Your task to perform on an android device: turn off data saver in the chrome app Image 0: 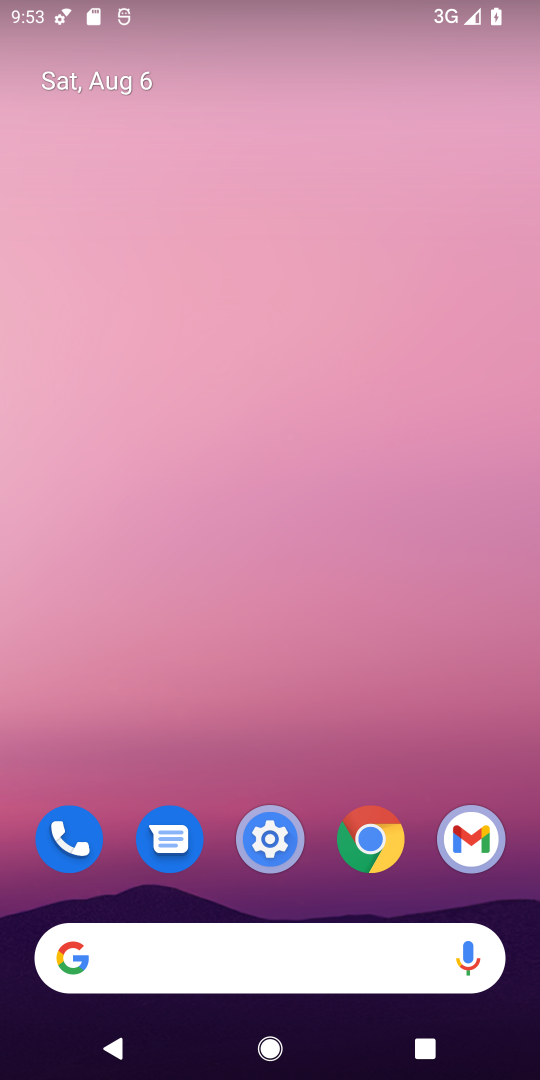
Step 0: press home button
Your task to perform on an android device: turn off data saver in the chrome app Image 1: 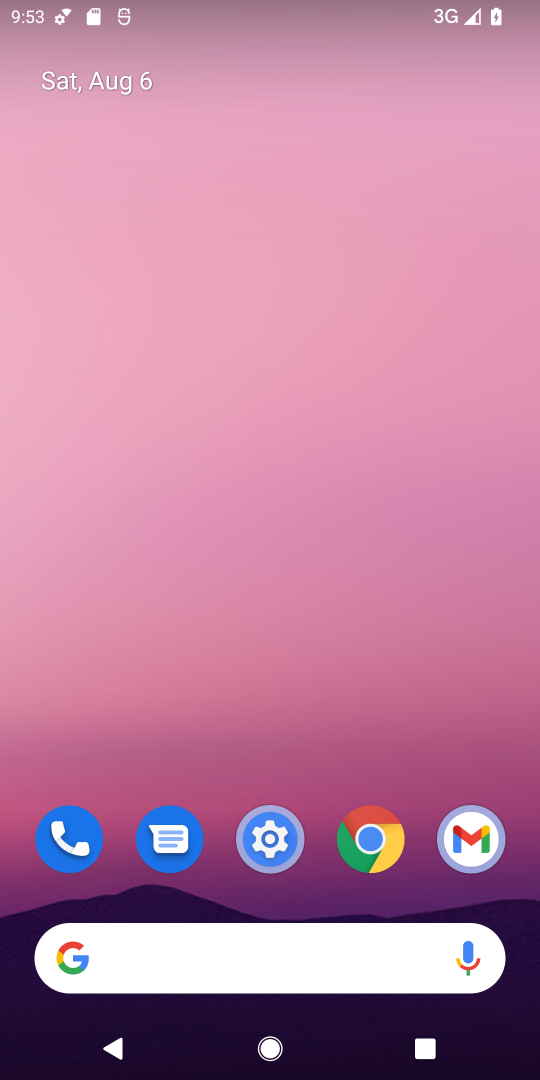
Step 1: click (373, 830)
Your task to perform on an android device: turn off data saver in the chrome app Image 2: 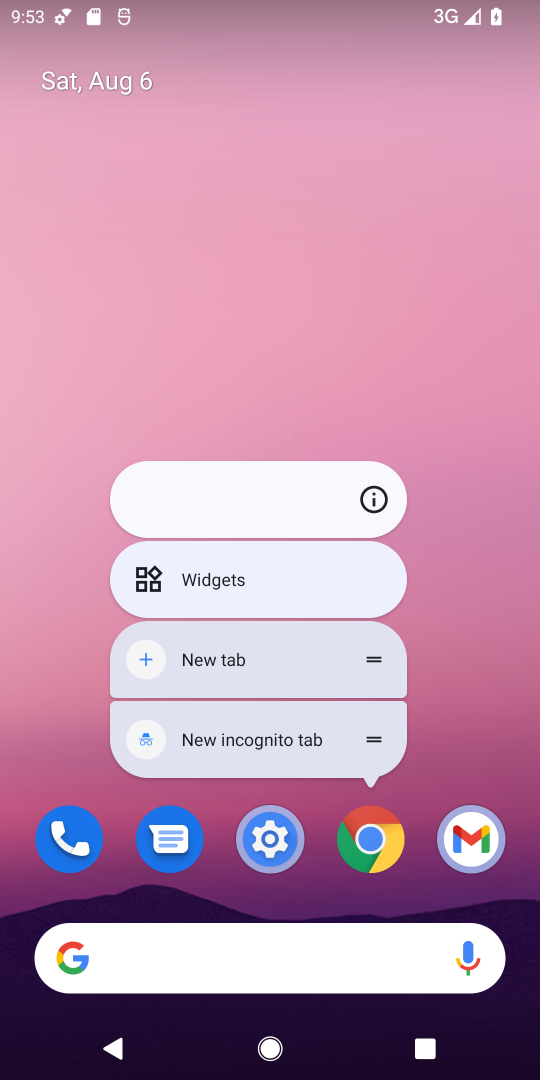
Step 2: click (439, 764)
Your task to perform on an android device: turn off data saver in the chrome app Image 3: 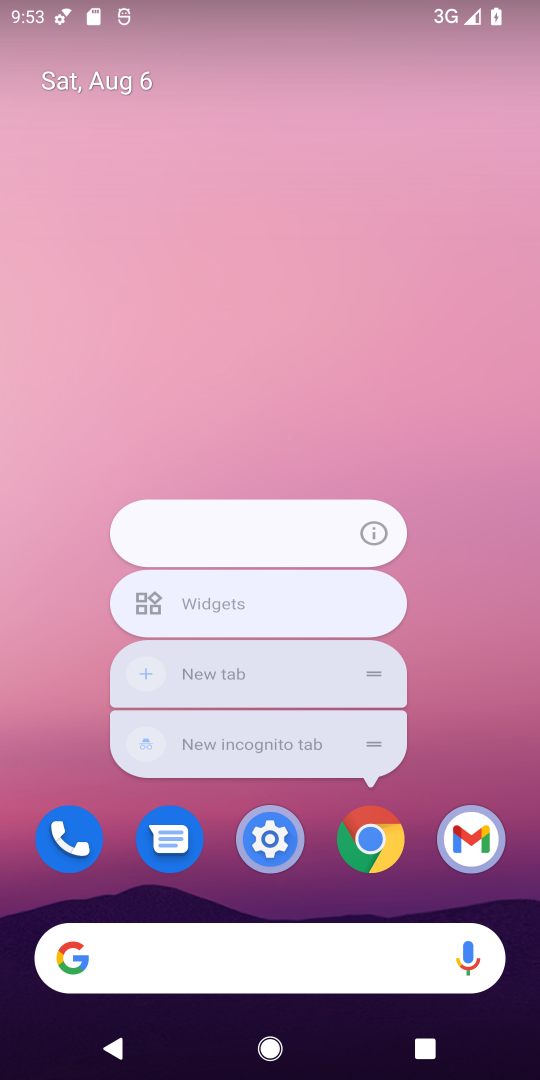
Step 3: drag from (439, 779) to (482, 36)
Your task to perform on an android device: turn off data saver in the chrome app Image 4: 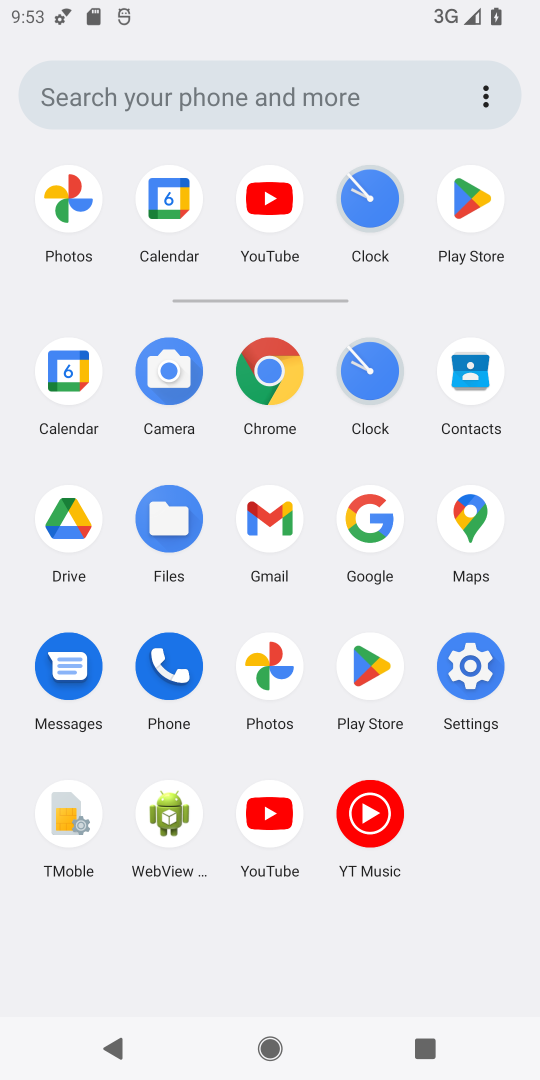
Step 4: click (254, 353)
Your task to perform on an android device: turn off data saver in the chrome app Image 5: 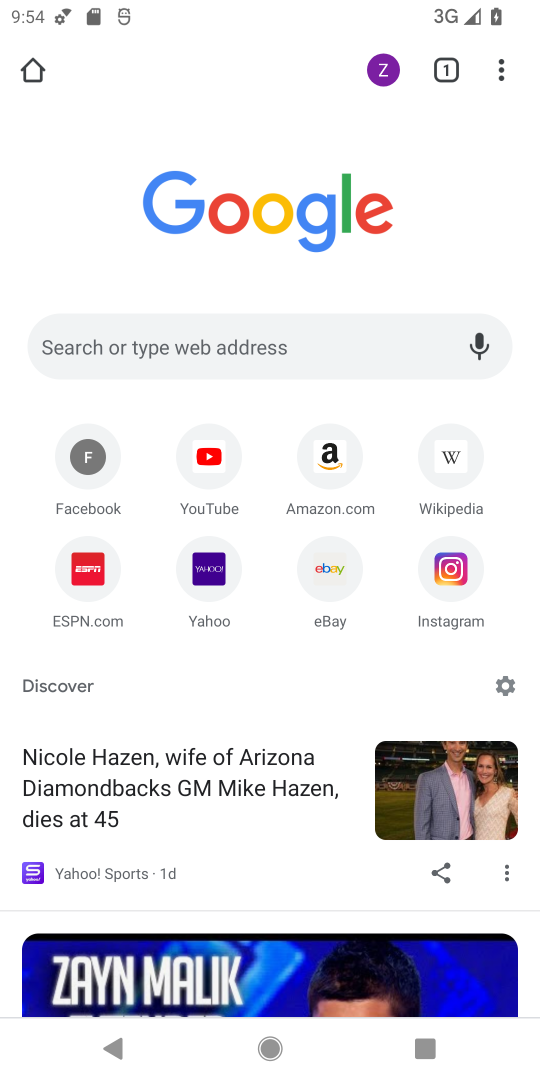
Step 5: click (492, 53)
Your task to perform on an android device: turn off data saver in the chrome app Image 6: 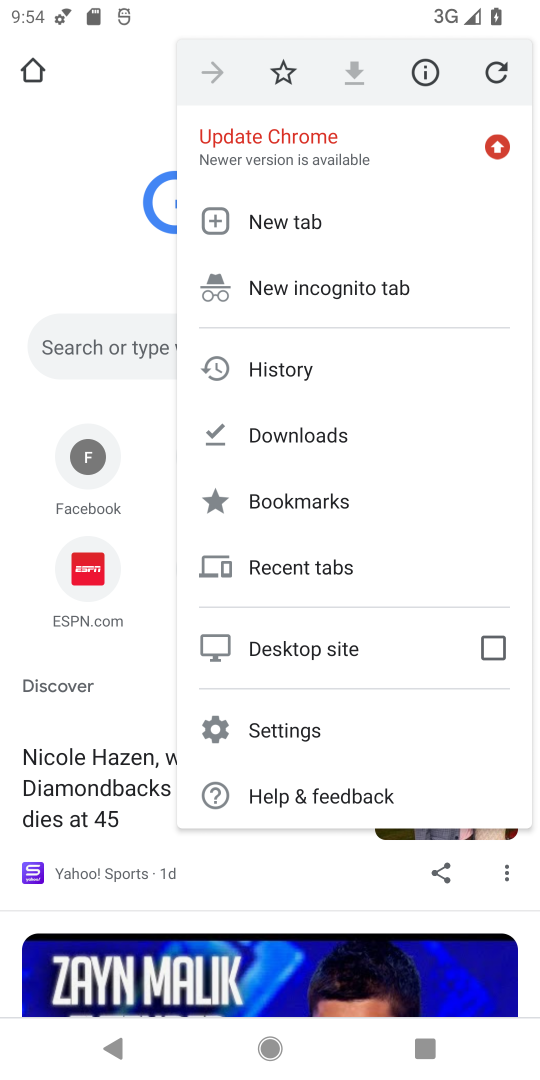
Step 6: click (348, 733)
Your task to perform on an android device: turn off data saver in the chrome app Image 7: 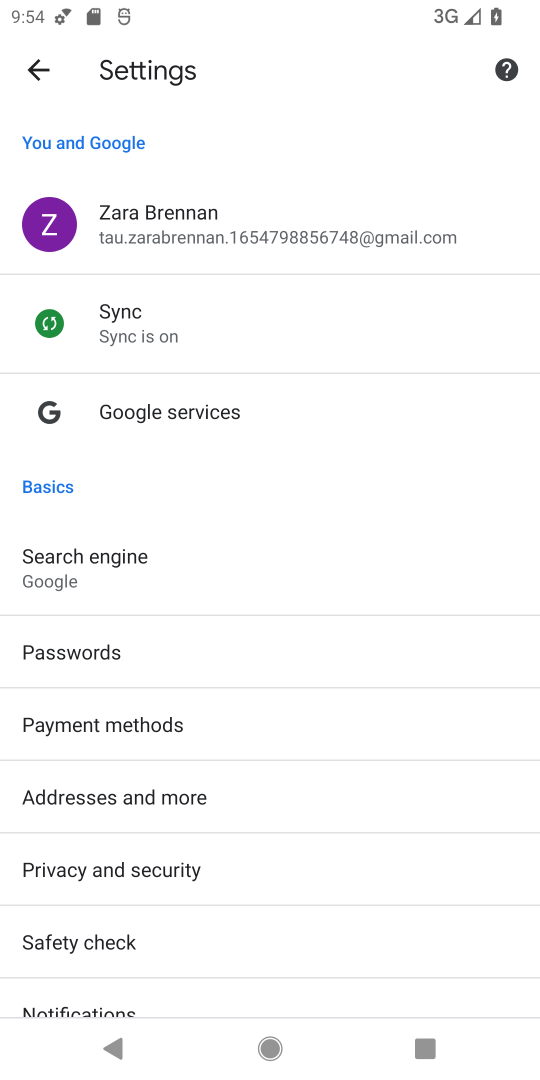
Step 7: drag from (231, 958) to (334, 553)
Your task to perform on an android device: turn off data saver in the chrome app Image 8: 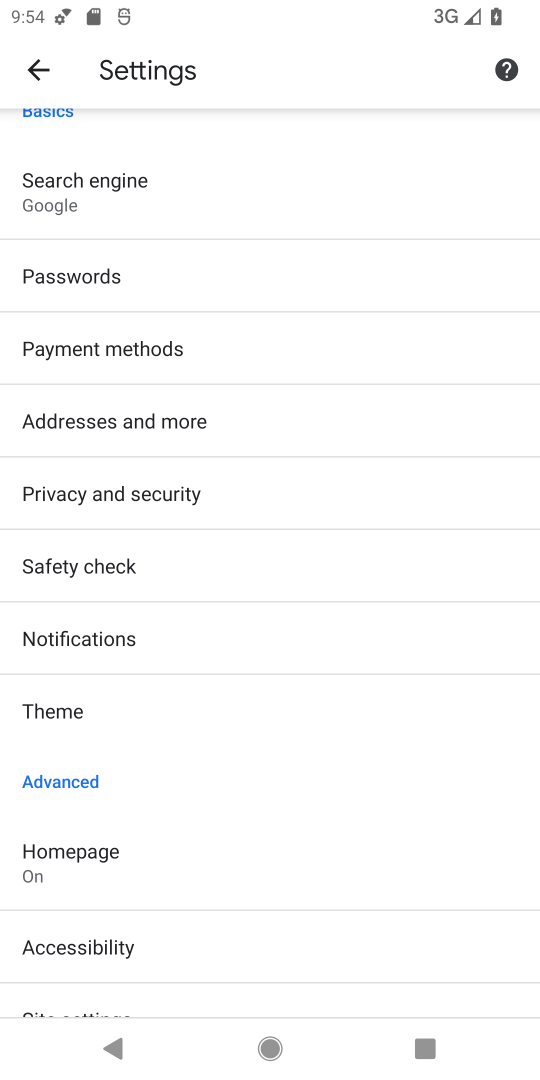
Step 8: drag from (171, 921) to (237, 384)
Your task to perform on an android device: turn off data saver in the chrome app Image 9: 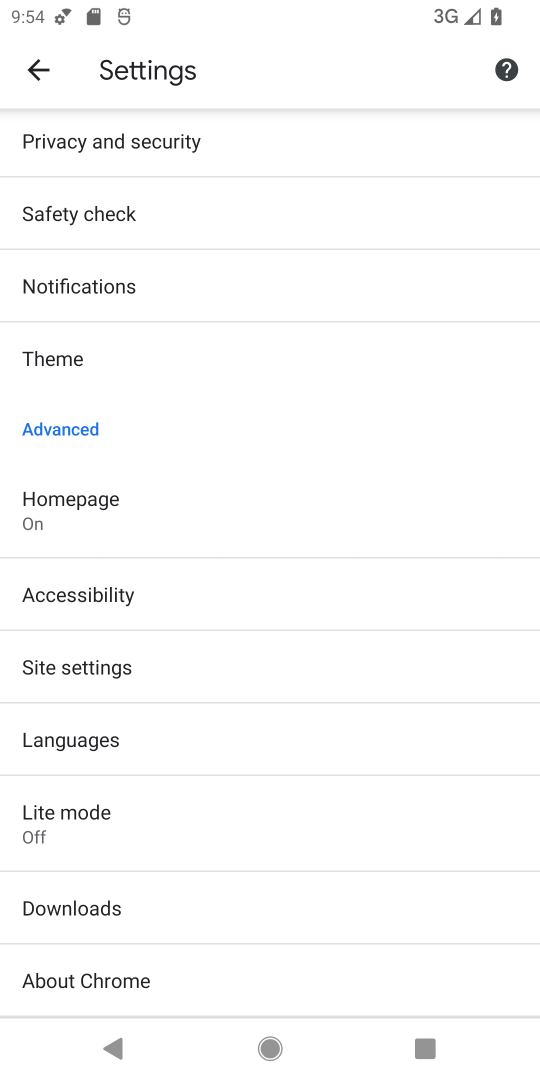
Step 9: click (148, 667)
Your task to perform on an android device: turn off data saver in the chrome app Image 10: 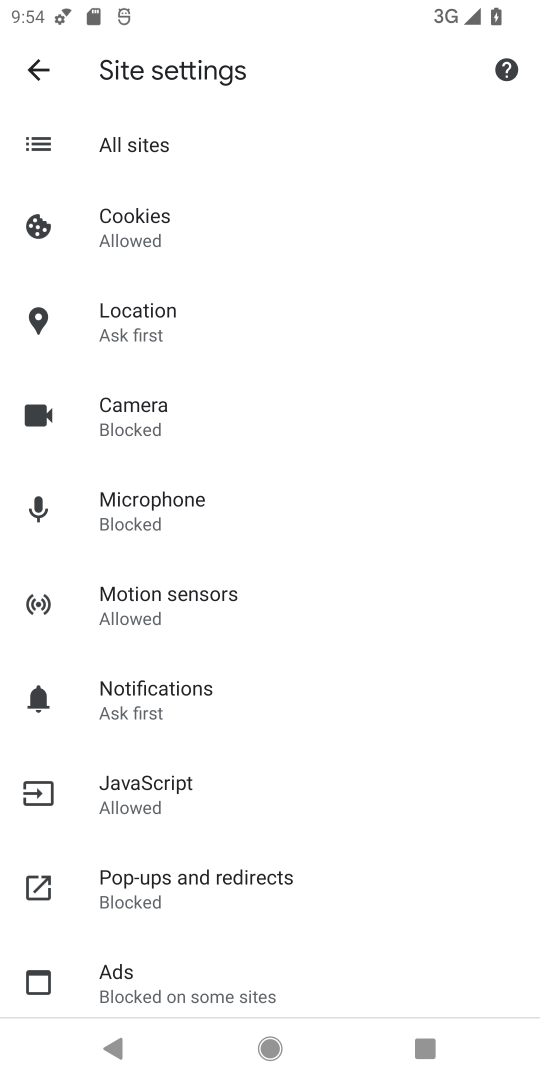
Step 10: click (187, 804)
Your task to perform on an android device: turn off data saver in the chrome app Image 11: 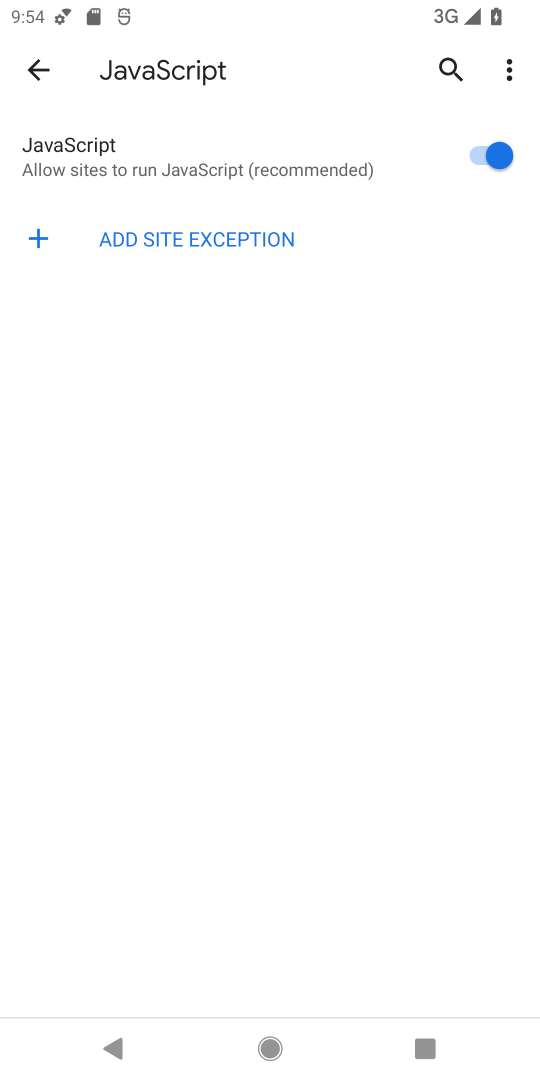
Step 11: click (492, 153)
Your task to perform on an android device: turn off data saver in the chrome app Image 12: 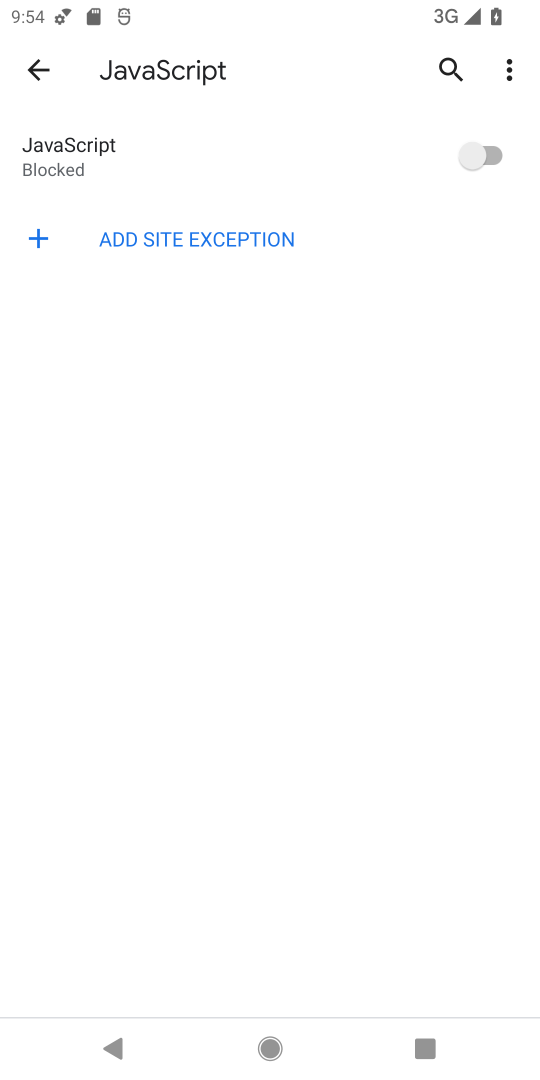
Step 12: task complete